Your task to perform on an android device: Open display settings Image 0: 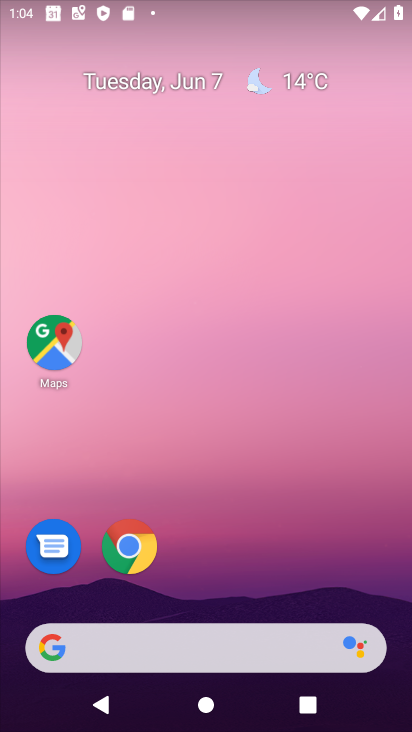
Step 0: drag from (230, 616) to (175, 33)
Your task to perform on an android device: Open display settings Image 1: 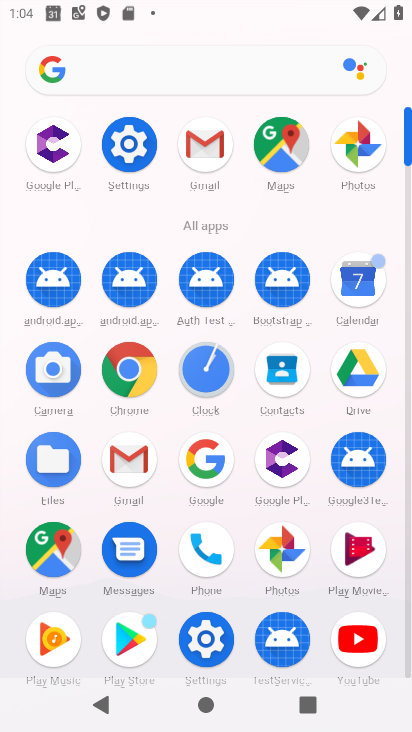
Step 1: click (127, 137)
Your task to perform on an android device: Open display settings Image 2: 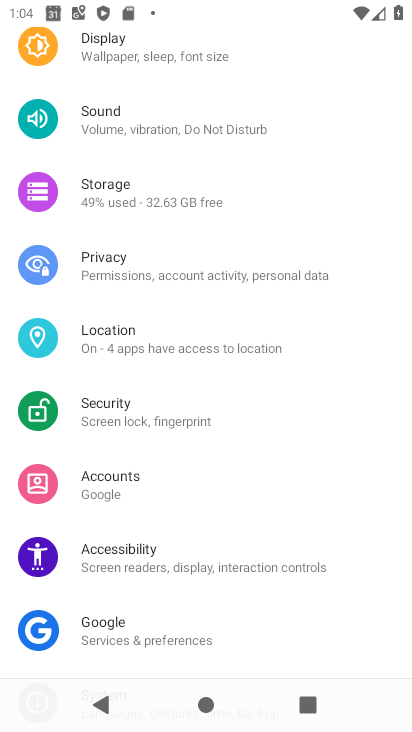
Step 2: drag from (127, 137) to (148, 444)
Your task to perform on an android device: Open display settings Image 3: 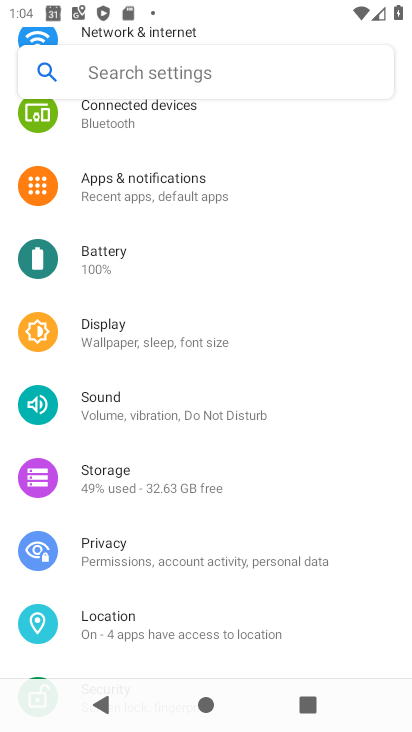
Step 3: click (110, 341)
Your task to perform on an android device: Open display settings Image 4: 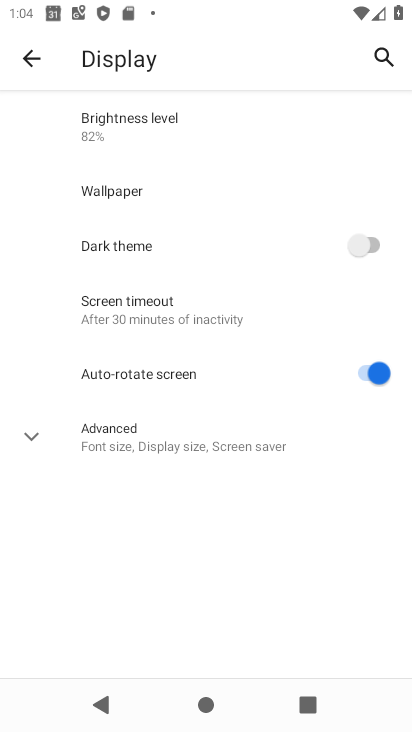
Step 4: click (180, 423)
Your task to perform on an android device: Open display settings Image 5: 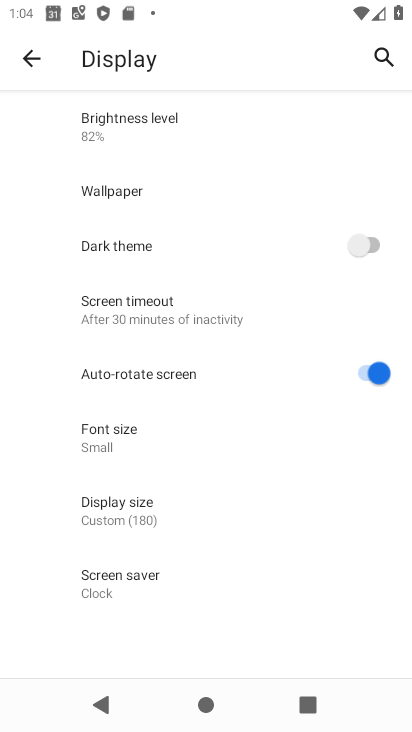
Step 5: task complete